Your task to perform on an android device: What's on my calendar tomorrow? Image 0: 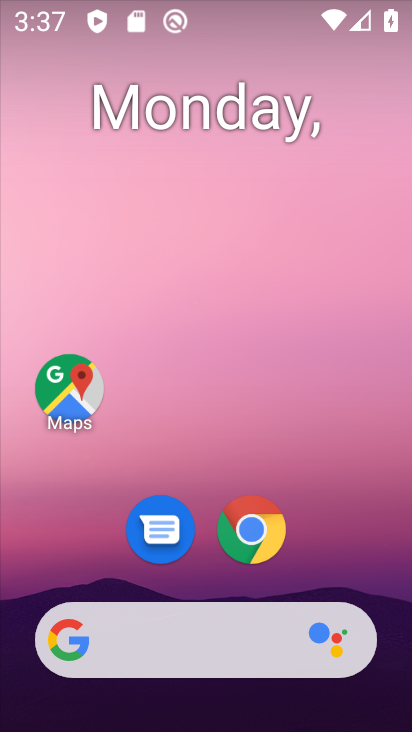
Step 0: drag from (203, 582) to (316, 48)
Your task to perform on an android device: What's on my calendar tomorrow? Image 1: 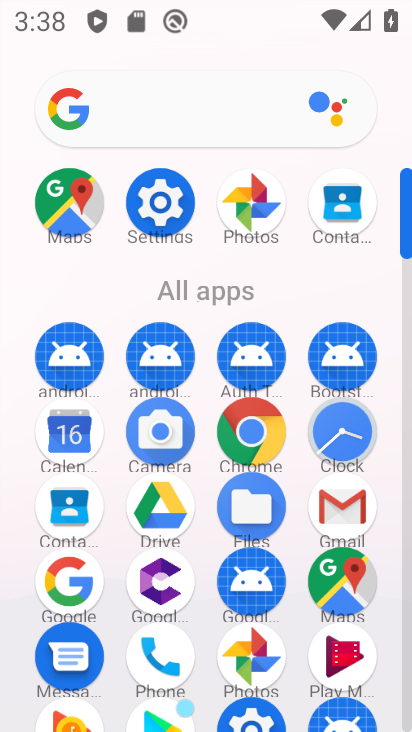
Step 1: click (87, 430)
Your task to perform on an android device: What's on my calendar tomorrow? Image 2: 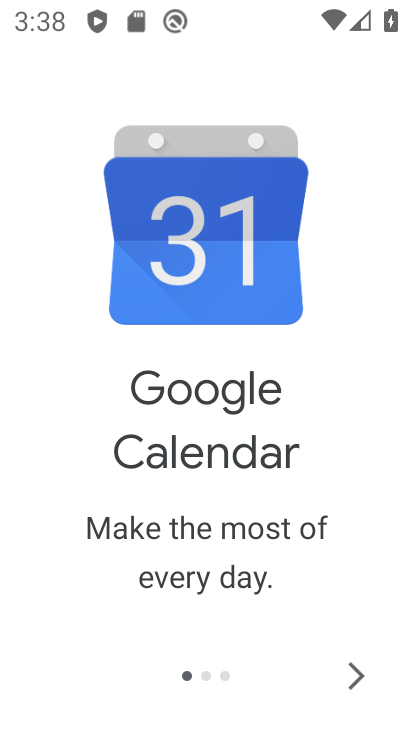
Step 2: click (349, 683)
Your task to perform on an android device: What's on my calendar tomorrow? Image 3: 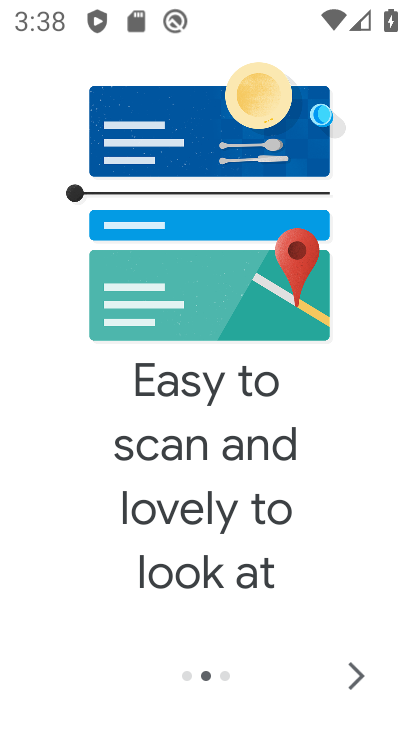
Step 3: click (354, 682)
Your task to perform on an android device: What's on my calendar tomorrow? Image 4: 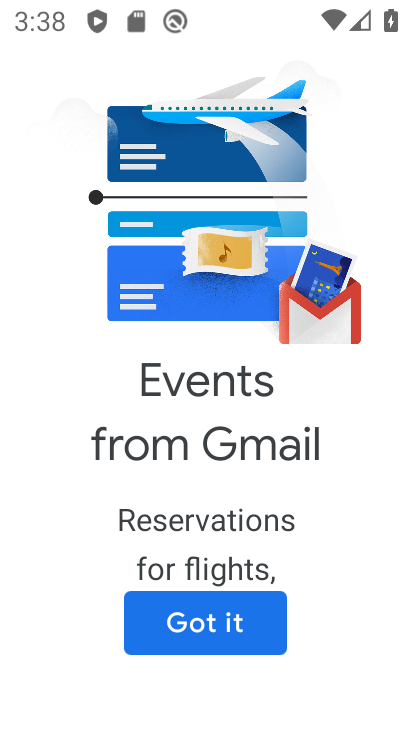
Step 4: click (256, 634)
Your task to perform on an android device: What's on my calendar tomorrow? Image 5: 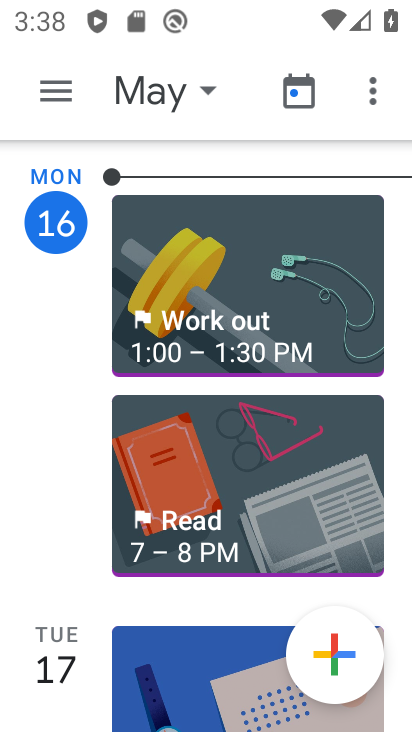
Step 5: click (56, 108)
Your task to perform on an android device: What's on my calendar tomorrow? Image 6: 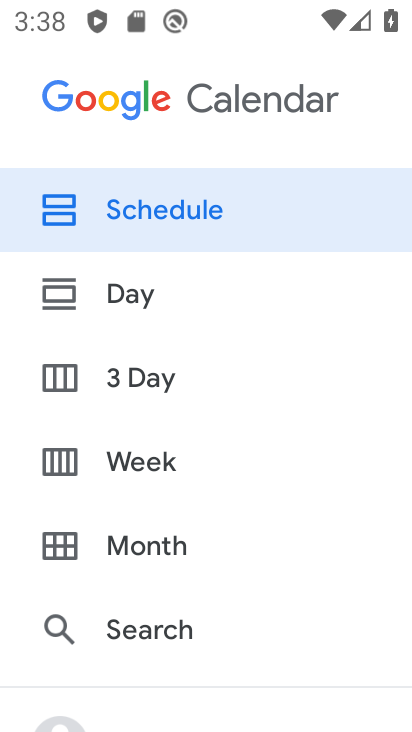
Step 6: click (114, 379)
Your task to perform on an android device: What's on my calendar tomorrow? Image 7: 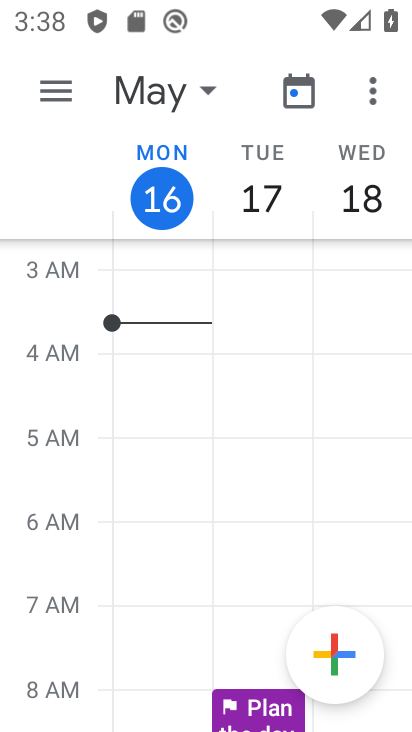
Step 7: task complete